Your task to perform on an android device: search for starred emails in the gmail app Image 0: 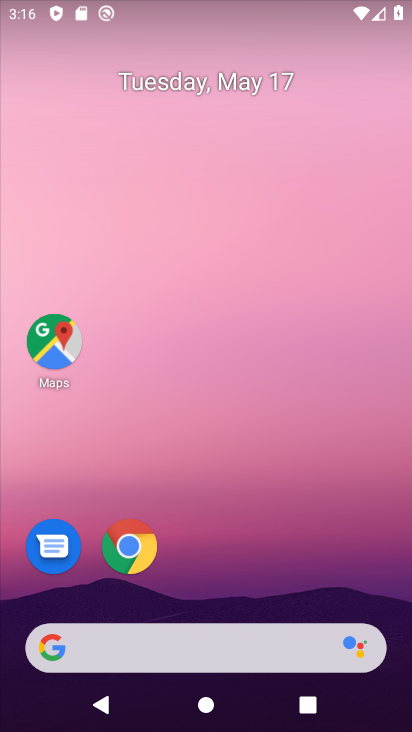
Step 0: drag from (106, 471) to (219, 19)
Your task to perform on an android device: search for starred emails in the gmail app Image 1: 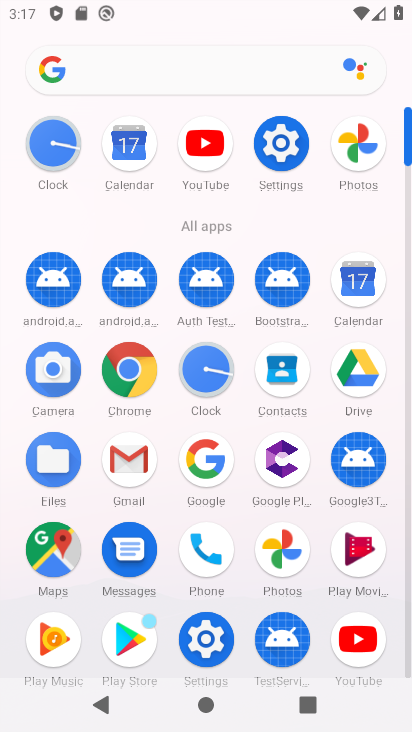
Step 1: click (131, 474)
Your task to perform on an android device: search for starred emails in the gmail app Image 2: 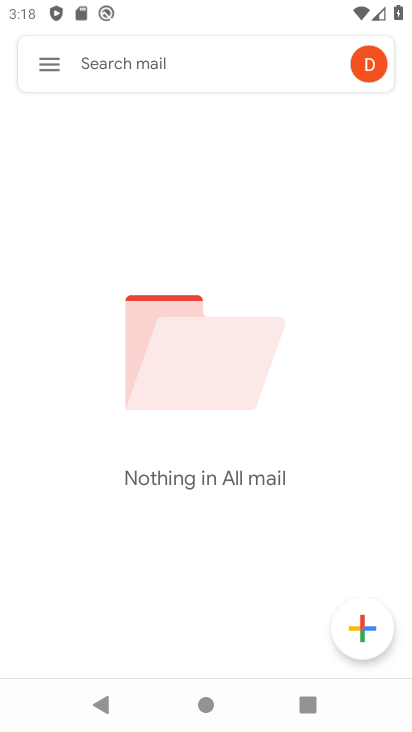
Step 2: click (44, 67)
Your task to perform on an android device: search for starred emails in the gmail app Image 3: 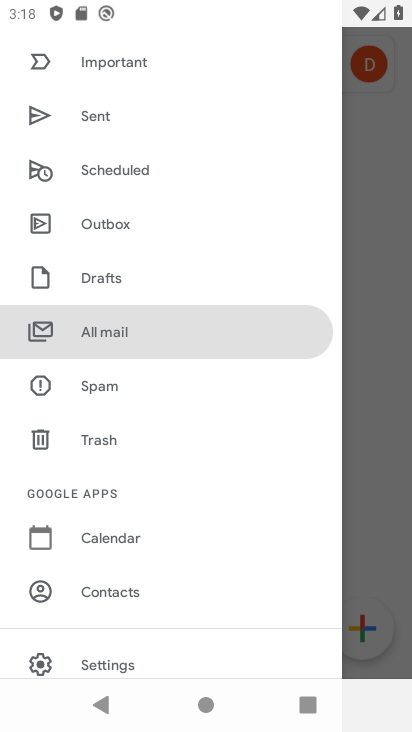
Step 3: drag from (140, 172) to (135, 499)
Your task to perform on an android device: search for starred emails in the gmail app Image 4: 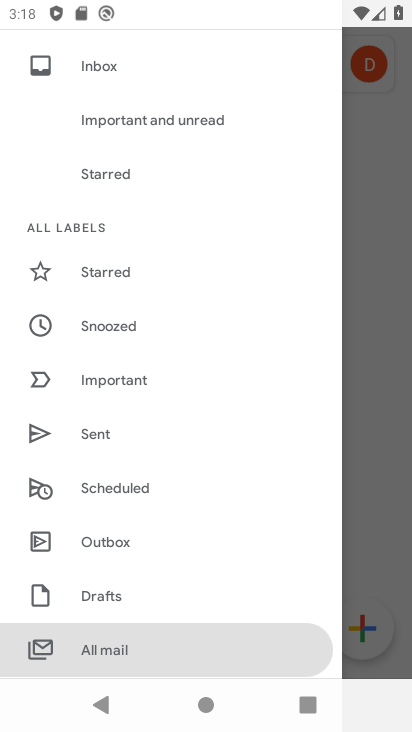
Step 4: click (103, 276)
Your task to perform on an android device: search for starred emails in the gmail app Image 5: 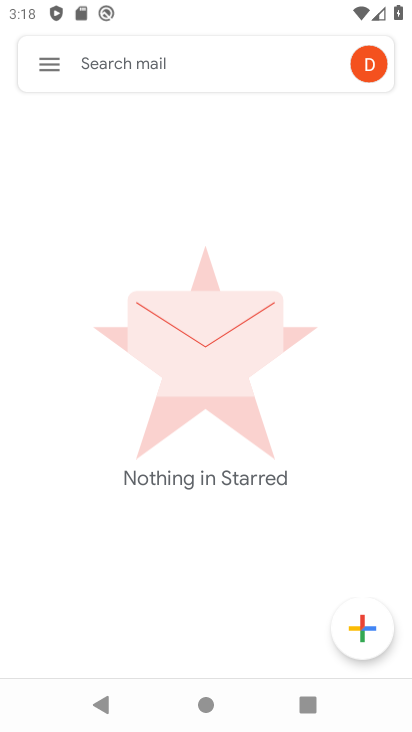
Step 5: task complete